Your task to perform on an android device: Go to accessibility settings Image 0: 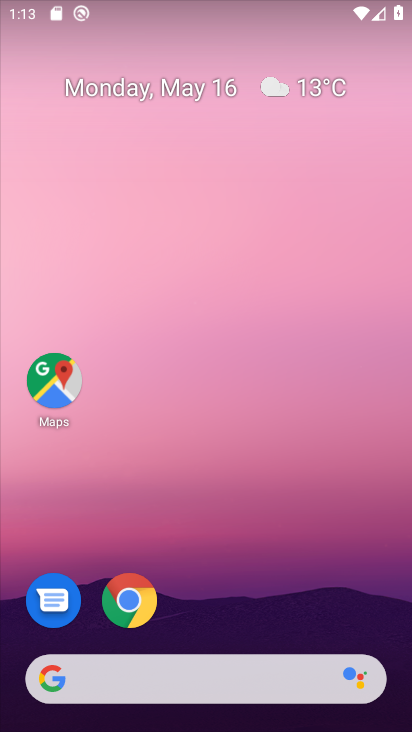
Step 0: drag from (276, 616) to (335, 88)
Your task to perform on an android device: Go to accessibility settings Image 1: 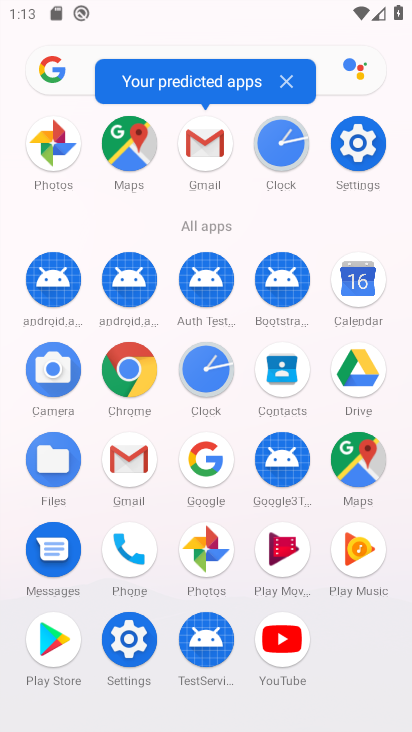
Step 1: click (354, 160)
Your task to perform on an android device: Go to accessibility settings Image 2: 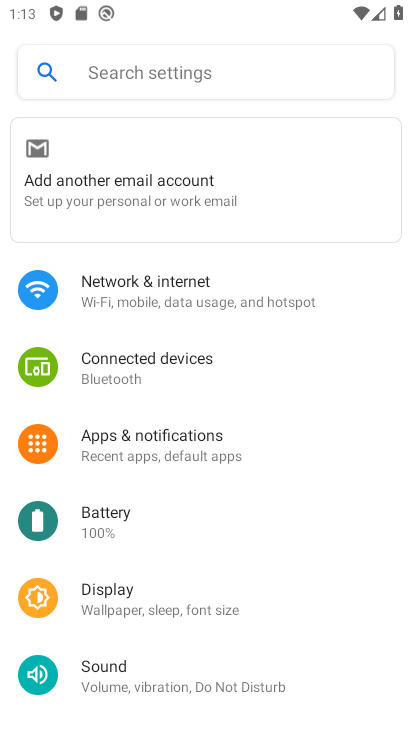
Step 2: drag from (245, 619) to (240, 156)
Your task to perform on an android device: Go to accessibility settings Image 3: 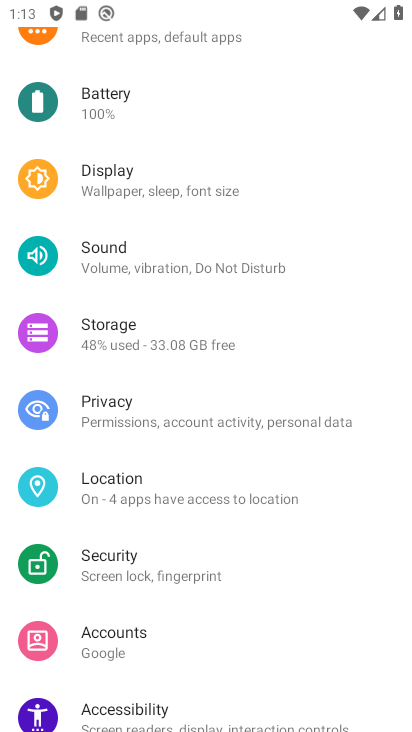
Step 3: click (143, 712)
Your task to perform on an android device: Go to accessibility settings Image 4: 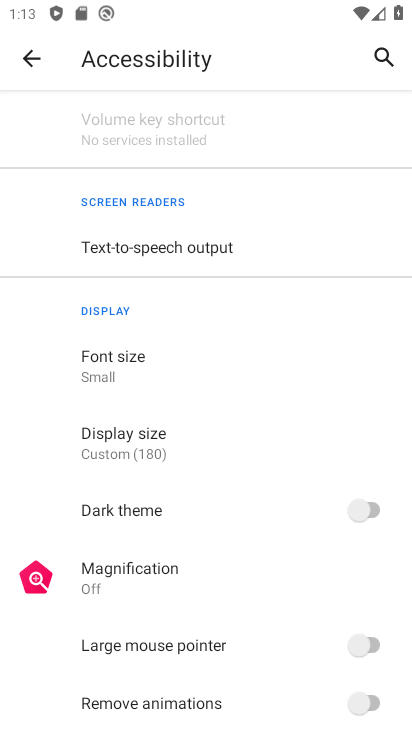
Step 4: task complete